Your task to perform on an android device: What's the news in Suriname? Image 0: 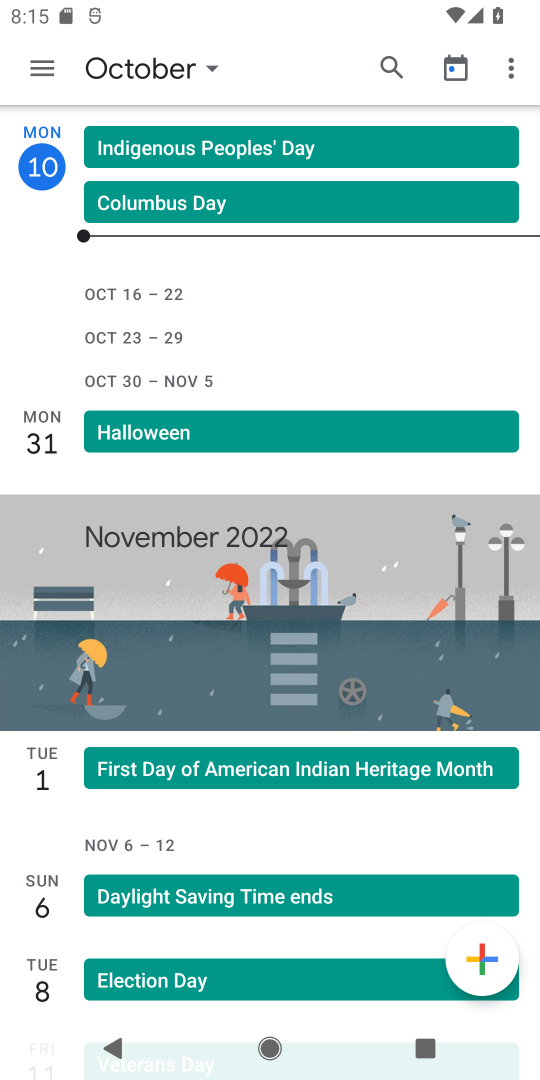
Step 0: press home button
Your task to perform on an android device: What's the news in Suriname? Image 1: 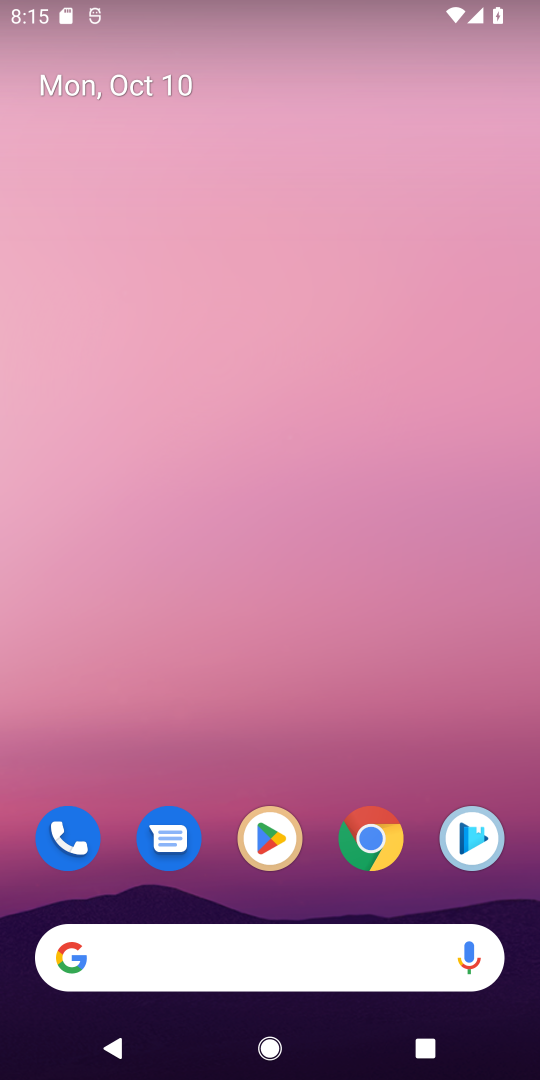
Step 1: click (372, 838)
Your task to perform on an android device: What's the news in Suriname? Image 2: 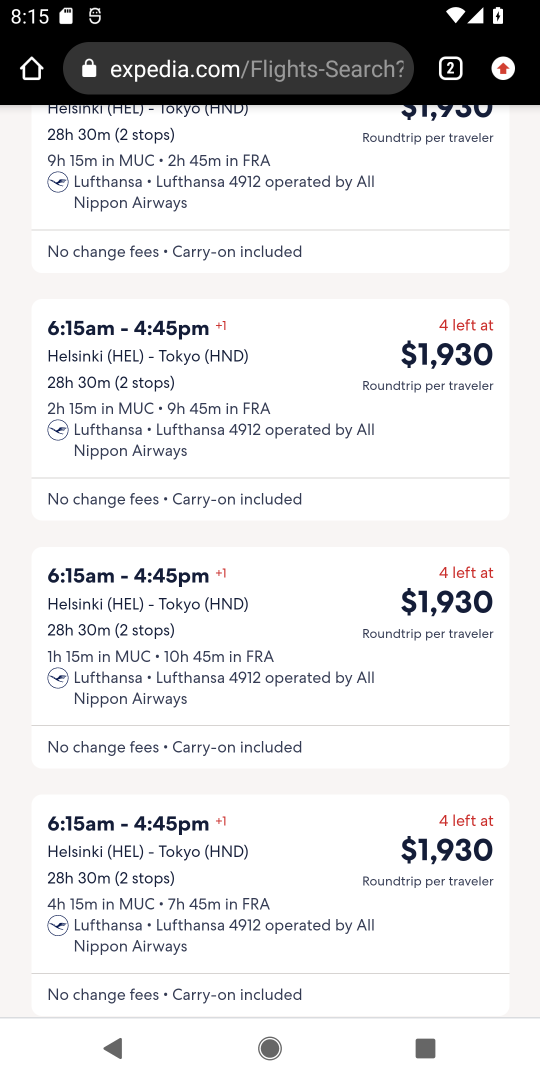
Step 2: click (197, 49)
Your task to perform on an android device: What's the news in Suriname? Image 3: 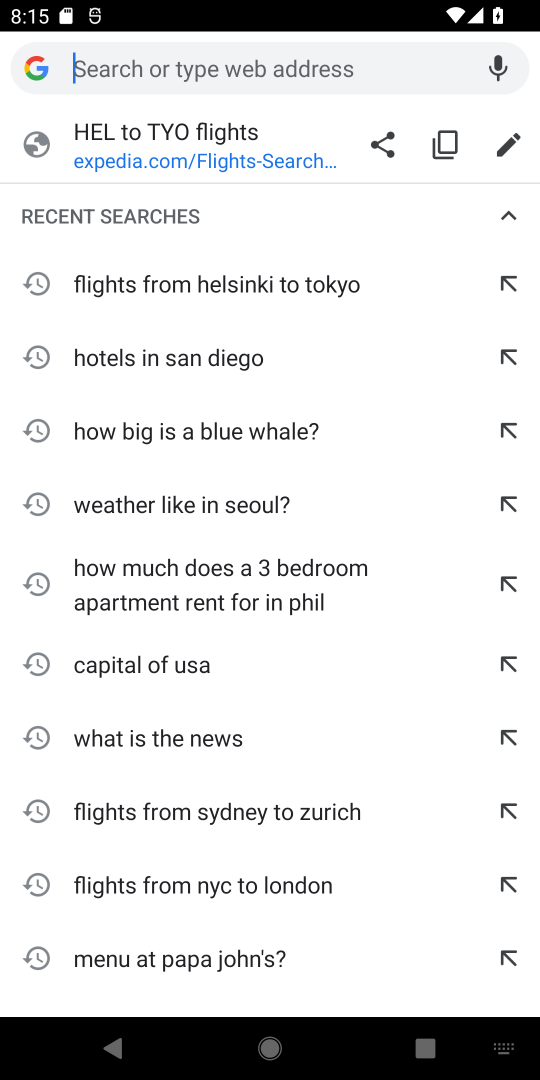
Step 3: type "news in suriname?"
Your task to perform on an android device: What's the news in Suriname? Image 4: 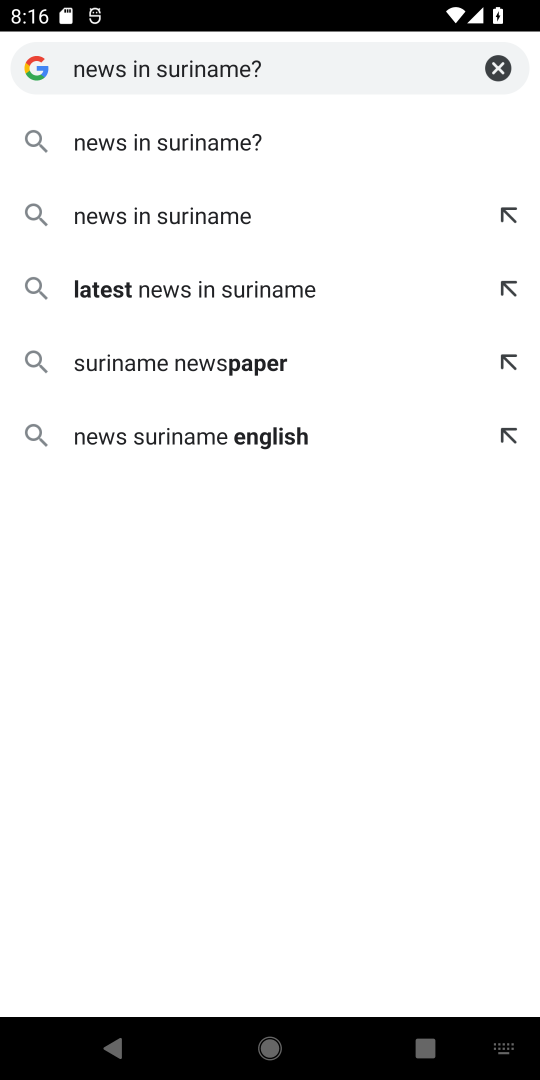
Step 4: click (128, 133)
Your task to perform on an android device: What's the news in Suriname? Image 5: 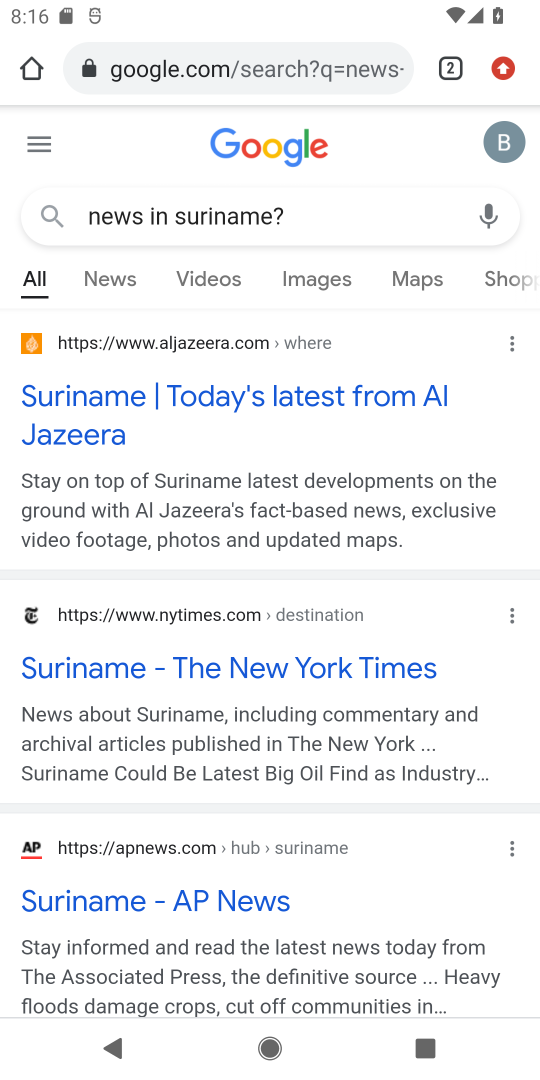
Step 5: click (89, 395)
Your task to perform on an android device: What's the news in Suriname? Image 6: 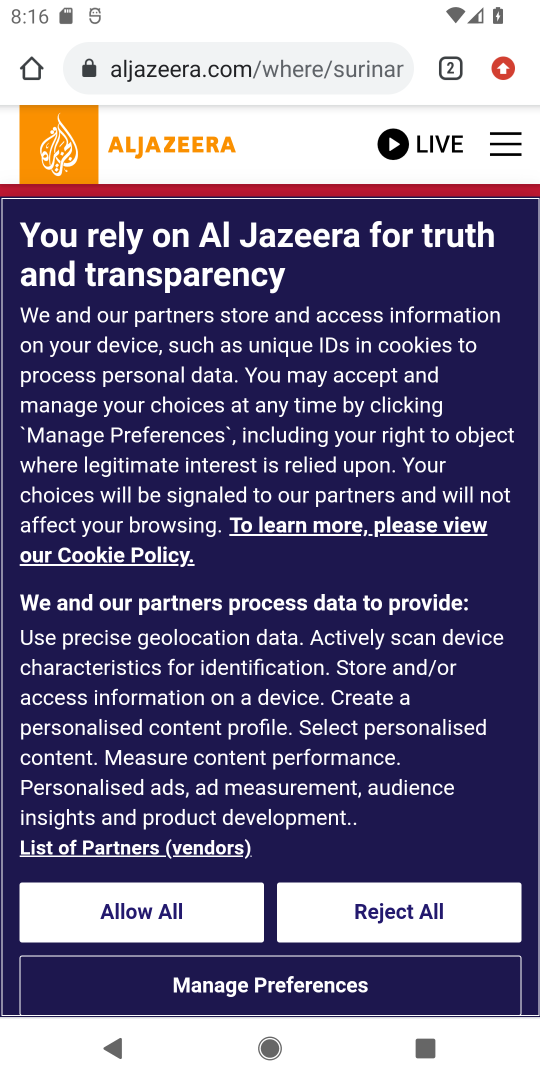
Step 6: click (114, 901)
Your task to perform on an android device: What's the news in Suriname? Image 7: 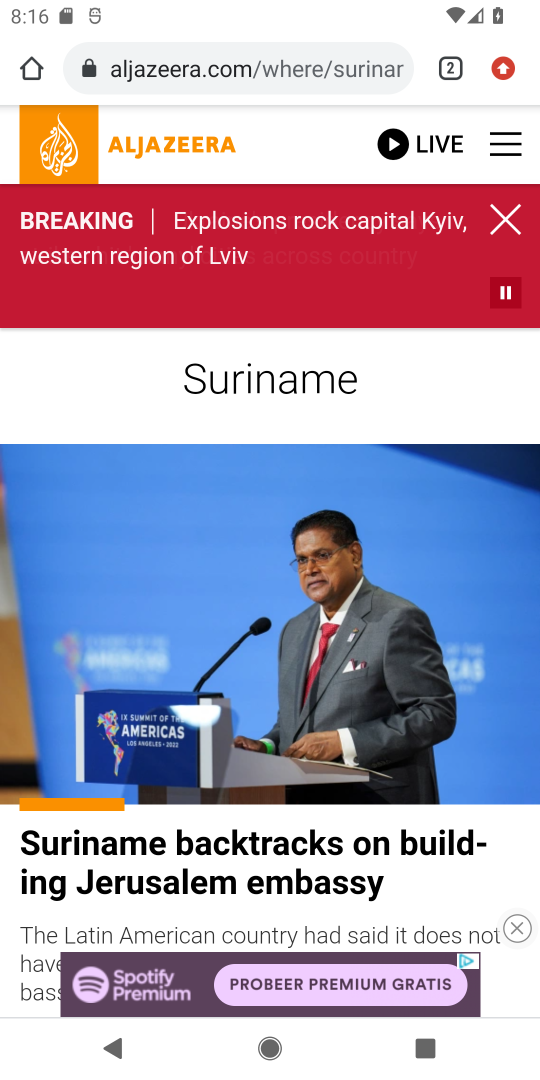
Step 7: task complete